Your task to perform on an android device: uninstall "Calculator" Image 0: 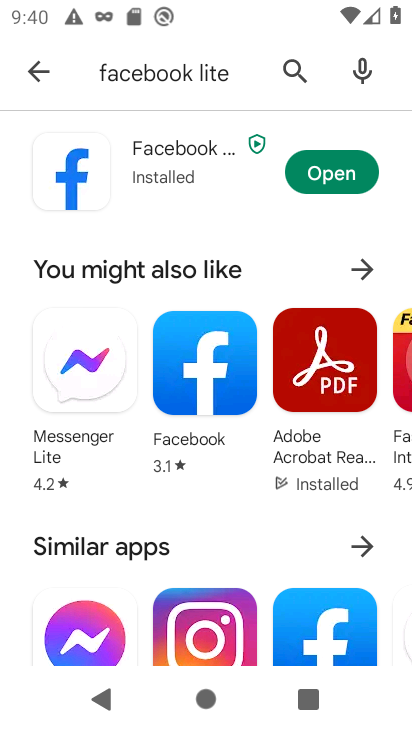
Step 0: press home button
Your task to perform on an android device: uninstall "Calculator" Image 1: 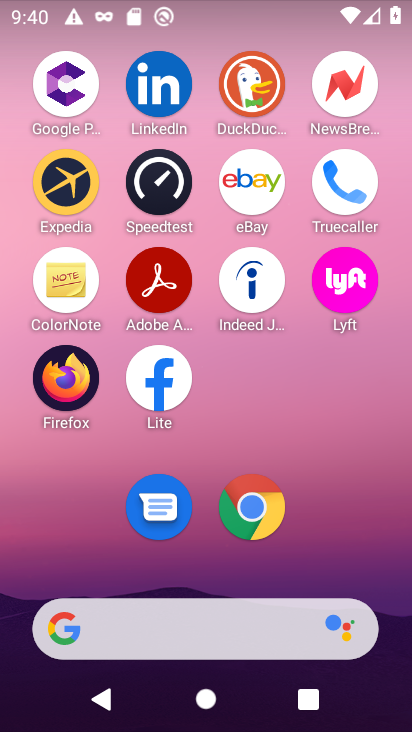
Step 1: drag from (187, 629) to (206, 203)
Your task to perform on an android device: uninstall "Calculator" Image 2: 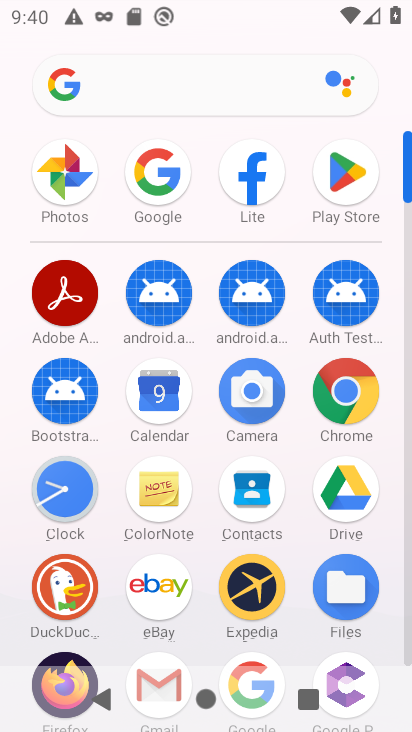
Step 2: click (343, 183)
Your task to perform on an android device: uninstall "Calculator" Image 3: 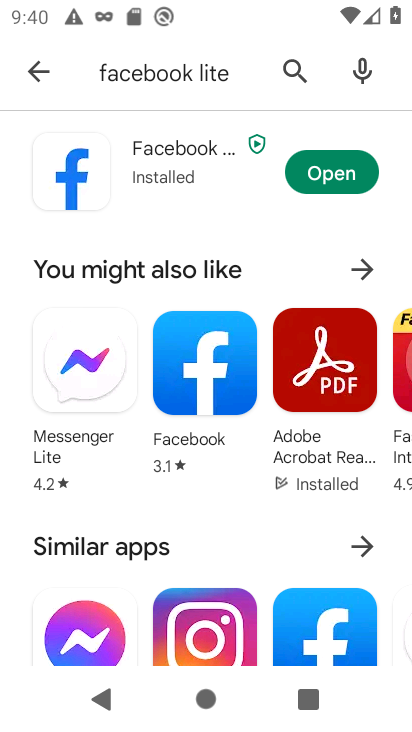
Step 3: click (300, 73)
Your task to perform on an android device: uninstall "Calculator" Image 4: 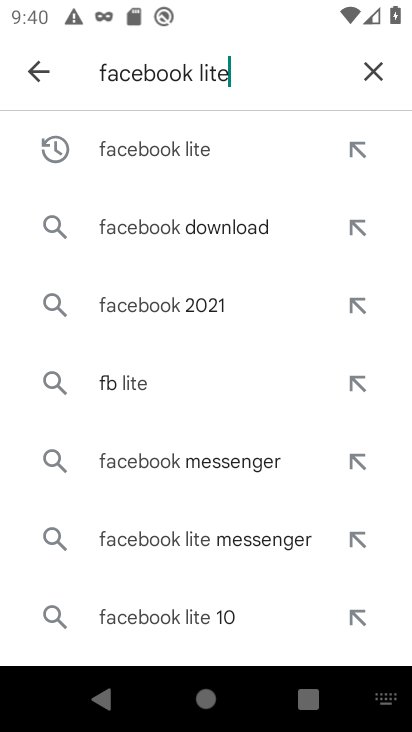
Step 4: click (374, 80)
Your task to perform on an android device: uninstall "Calculator" Image 5: 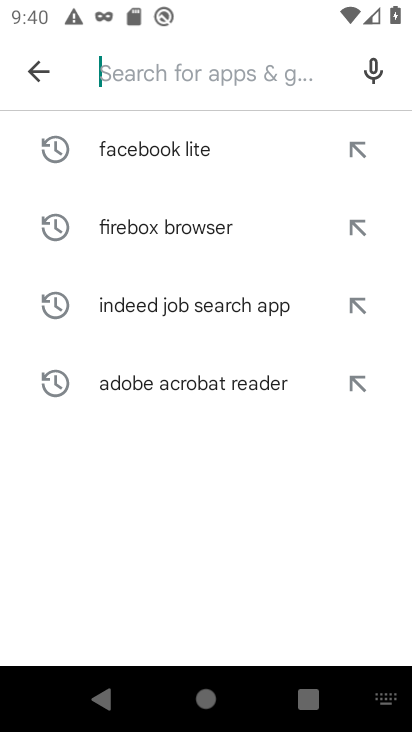
Step 5: type "Calculator"
Your task to perform on an android device: uninstall "Calculator" Image 6: 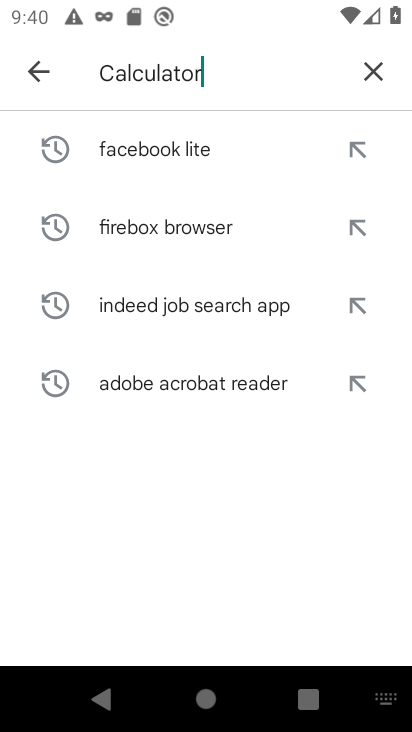
Step 6: type ""
Your task to perform on an android device: uninstall "Calculator" Image 7: 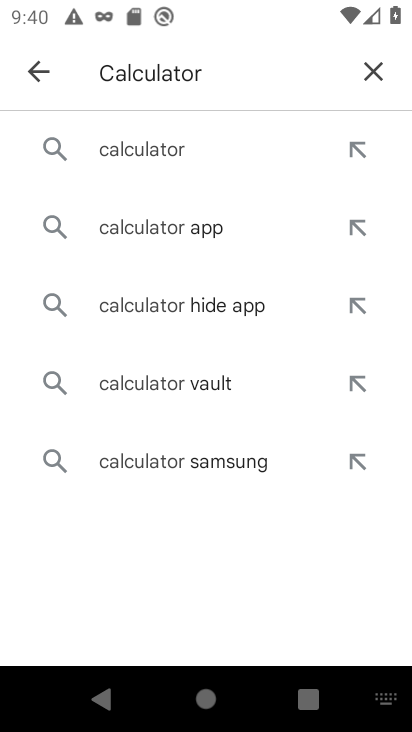
Step 7: click (167, 149)
Your task to perform on an android device: uninstall "Calculator" Image 8: 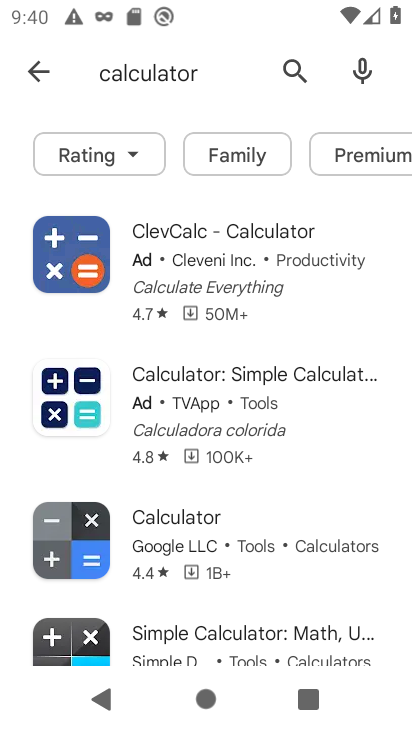
Step 8: drag from (250, 575) to (306, 475)
Your task to perform on an android device: uninstall "Calculator" Image 9: 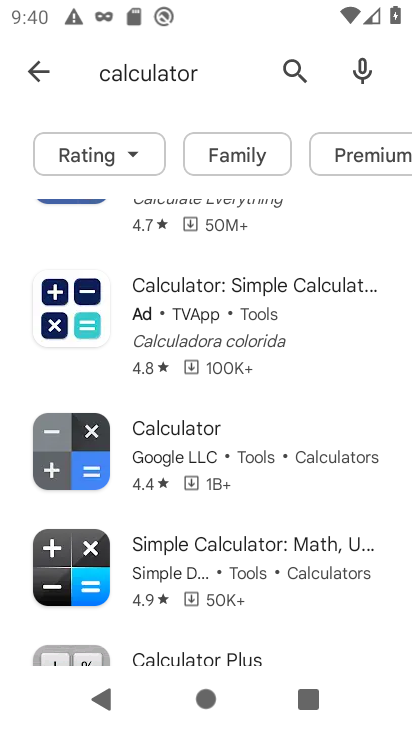
Step 9: click (193, 423)
Your task to perform on an android device: uninstall "Calculator" Image 10: 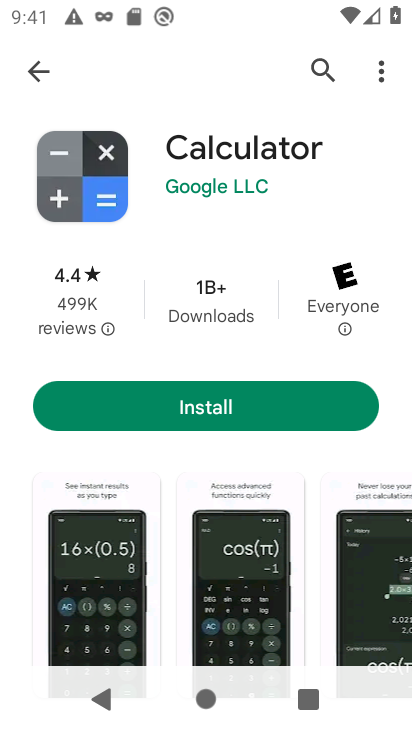
Step 10: task complete